Your task to perform on an android device: Search for "macbook pro 15 inch" on walmart.com, select the first entry, and add it to the cart. Image 0: 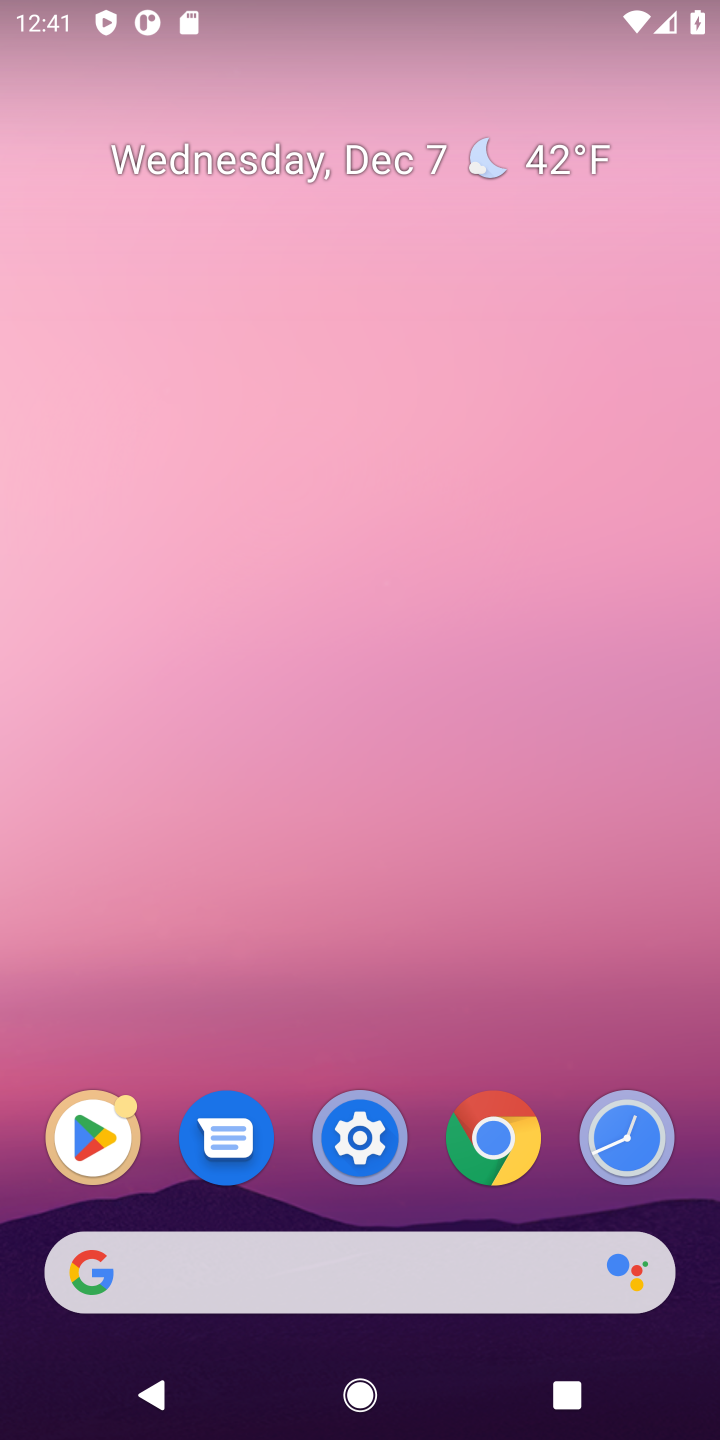
Step 0: click (289, 1302)
Your task to perform on an android device: Search for "macbook pro 15 inch" on walmart.com, select the first entry, and add it to the cart. Image 1: 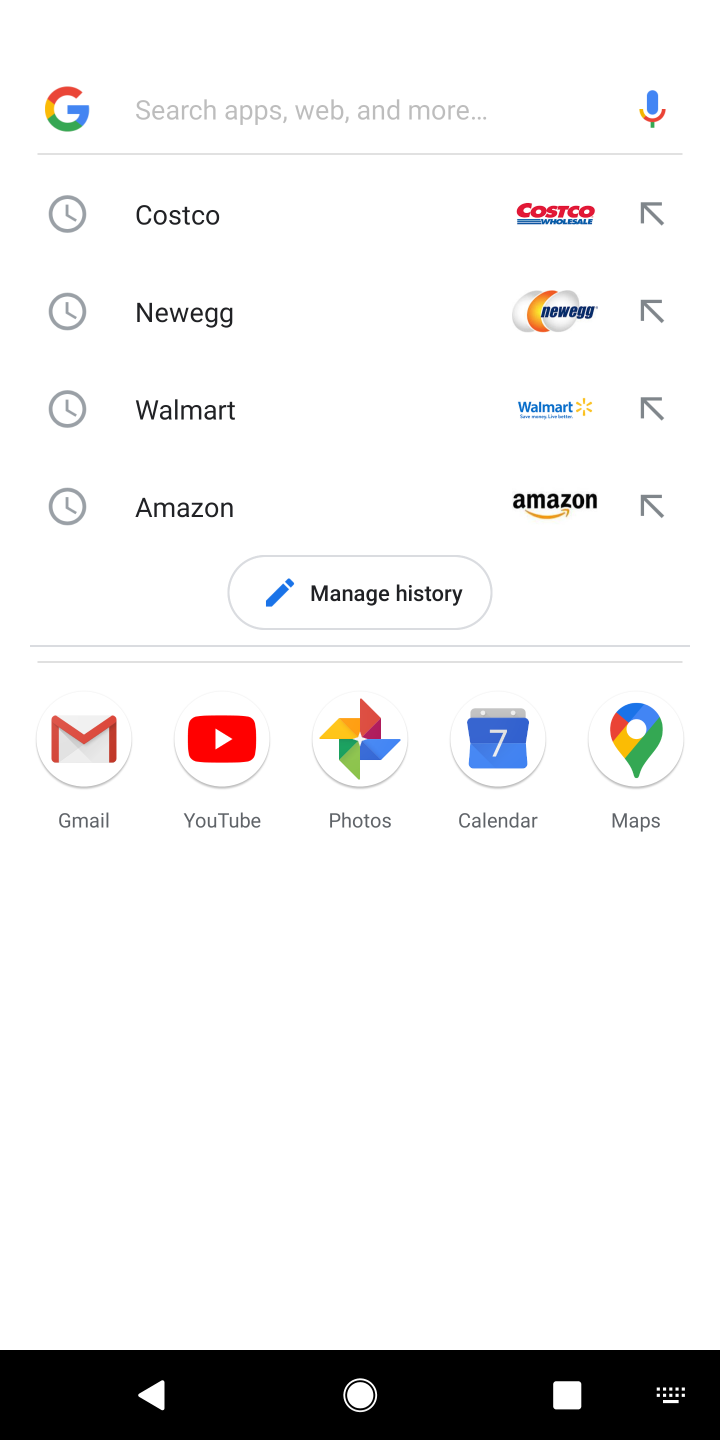
Step 1: type "walmart"
Your task to perform on an android device: Search for "macbook pro 15 inch" on walmart.com, select the first entry, and add it to the cart. Image 2: 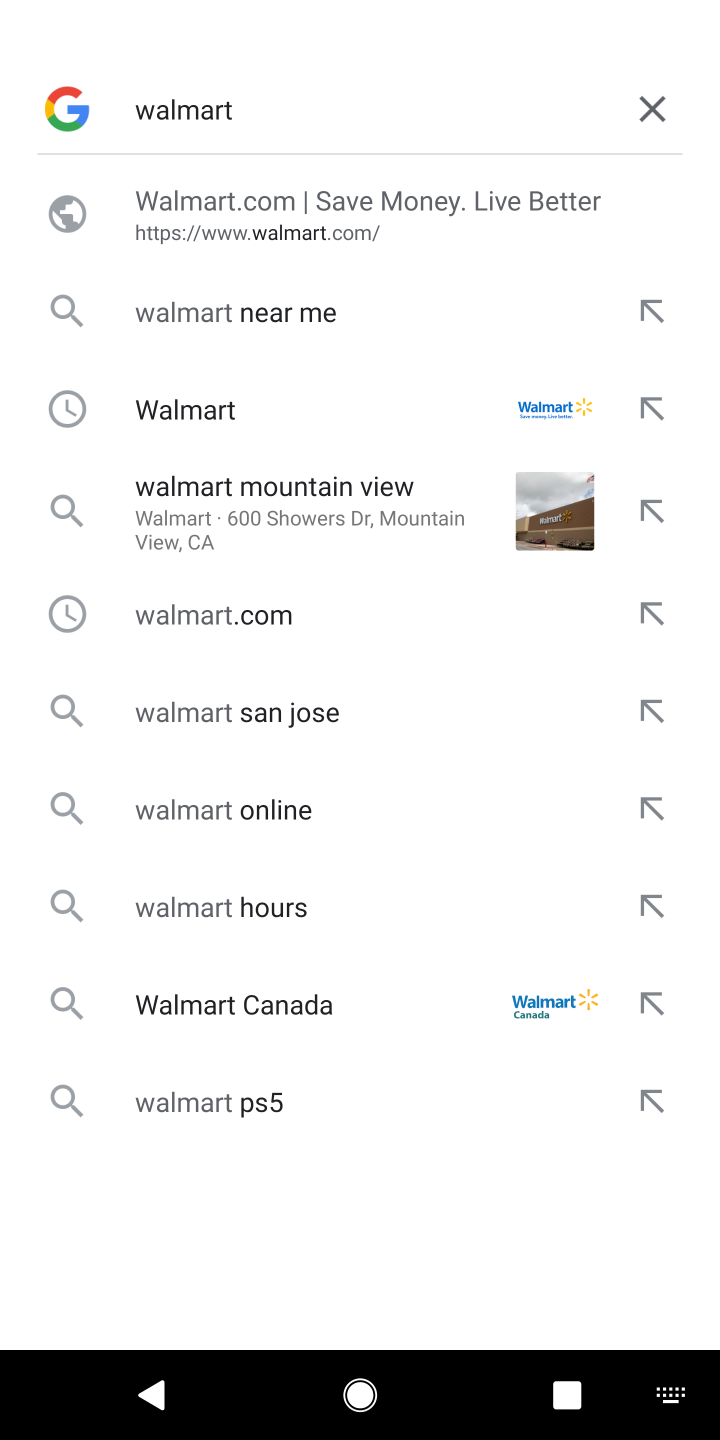
Step 2: click (260, 417)
Your task to perform on an android device: Search for "macbook pro 15 inch" on walmart.com, select the first entry, and add it to the cart. Image 3: 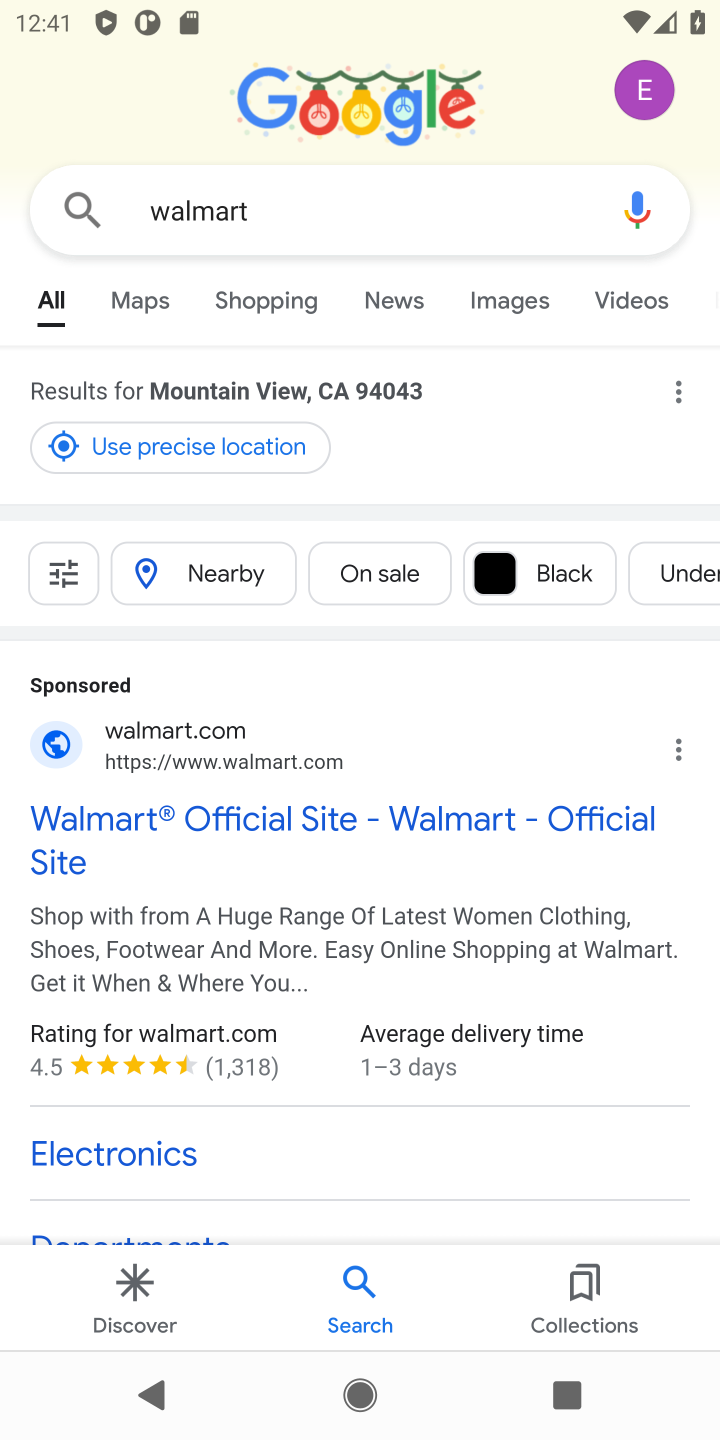
Step 3: click (29, 772)
Your task to perform on an android device: Search for "macbook pro 15 inch" on walmart.com, select the first entry, and add it to the cart. Image 4: 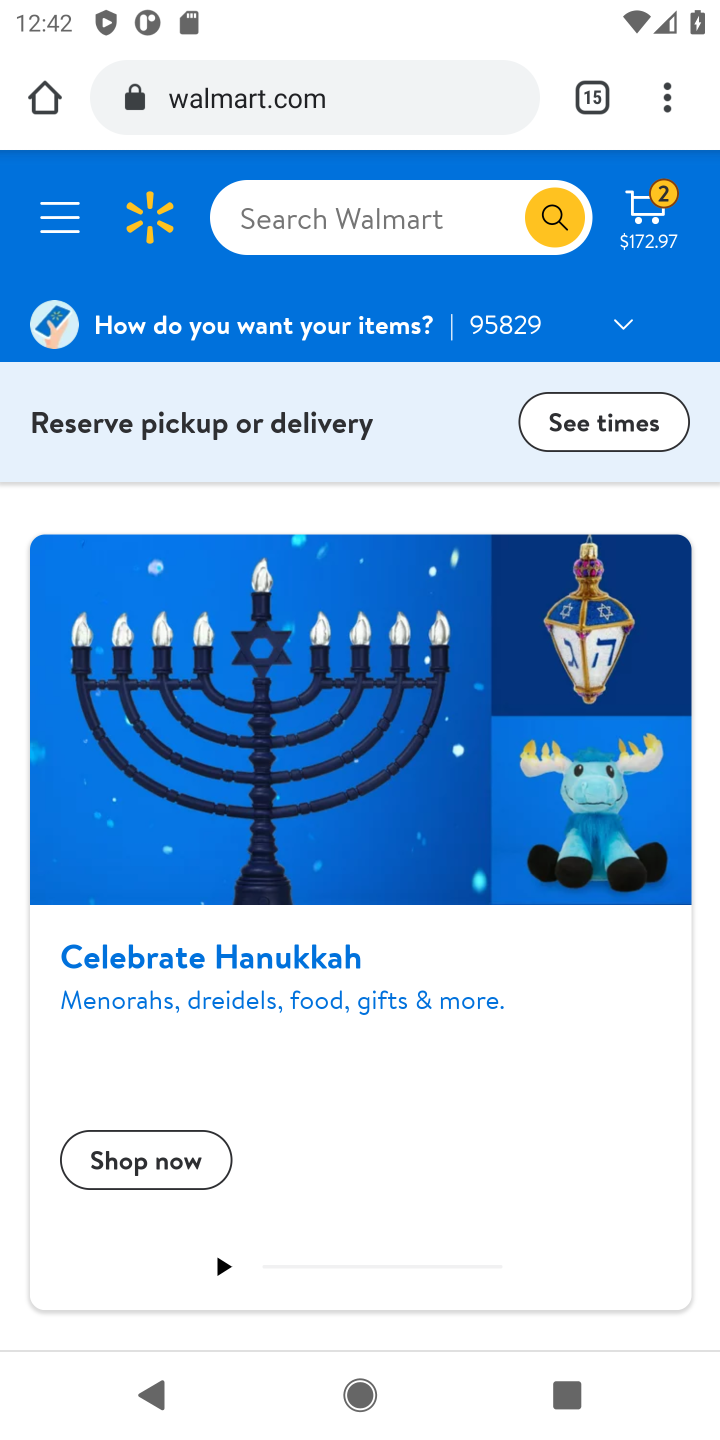
Step 4: click (323, 228)
Your task to perform on an android device: Search for "macbook pro 15 inch" on walmart.com, select the first entry, and add it to the cart. Image 5: 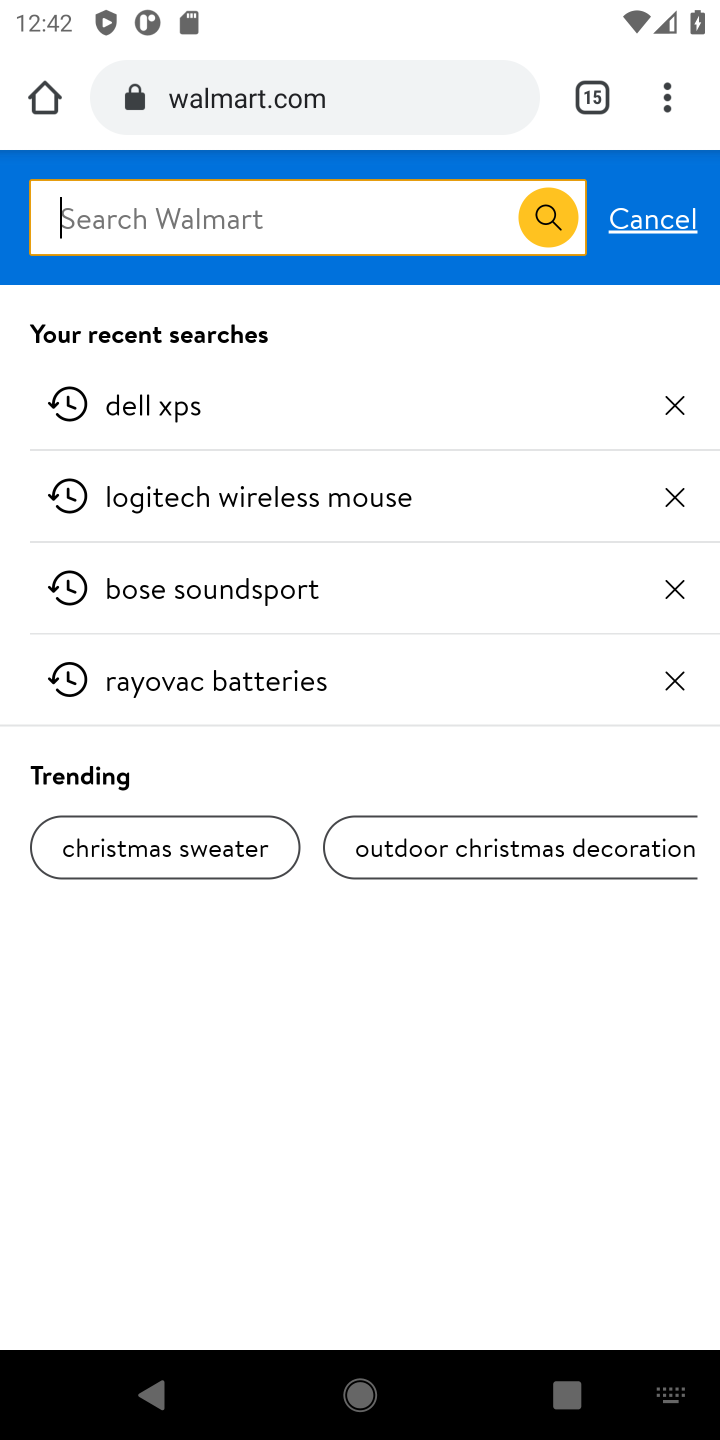
Step 5: type "macbook pro 15"
Your task to perform on an android device: Search for "macbook pro 15 inch" on walmart.com, select the first entry, and add it to the cart. Image 6: 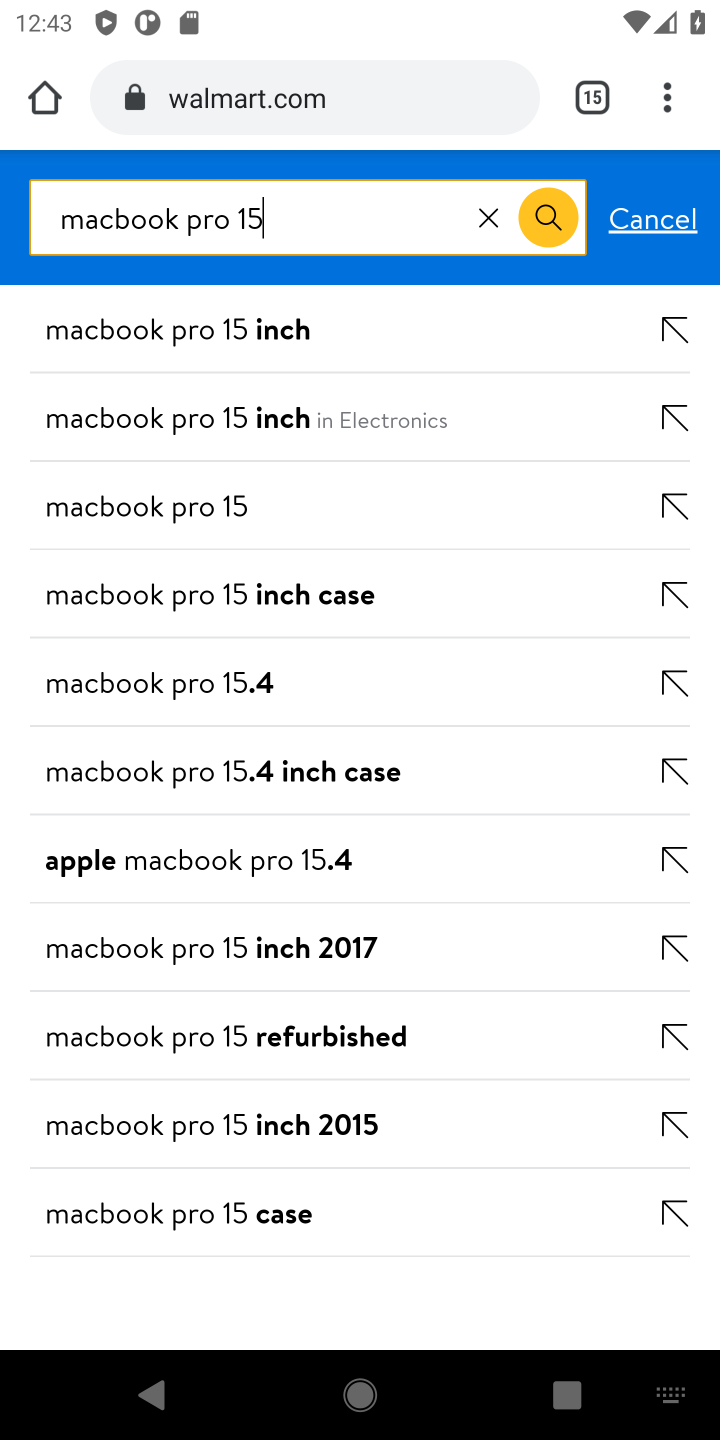
Step 6: click (199, 321)
Your task to perform on an android device: Search for "macbook pro 15 inch" on walmart.com, select the first entry, and add it to the cart. Image 7: 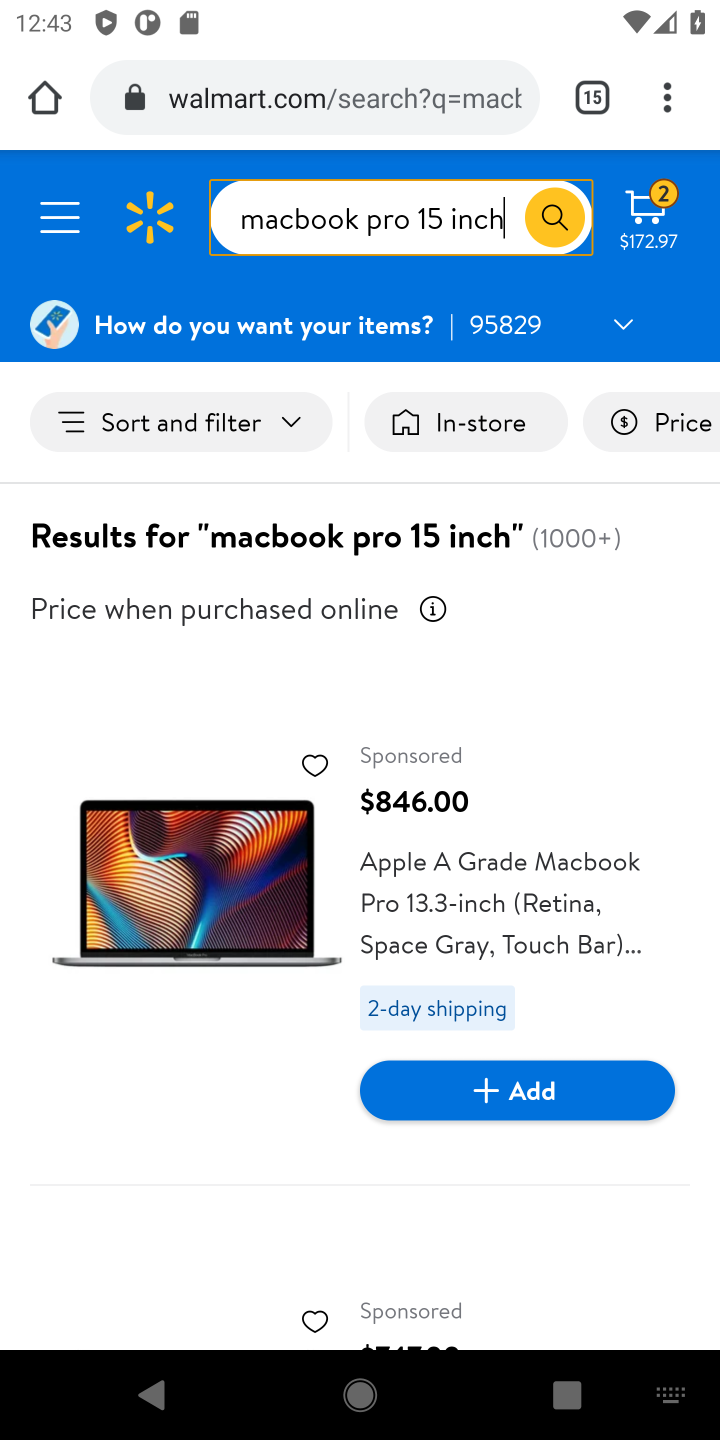
Step 7: click (583, 1114)
Your task to perform on an android device: Search for "macbook pro 15 inch" on walmart.com, select the first entry, and add it to the cart. Image 8: 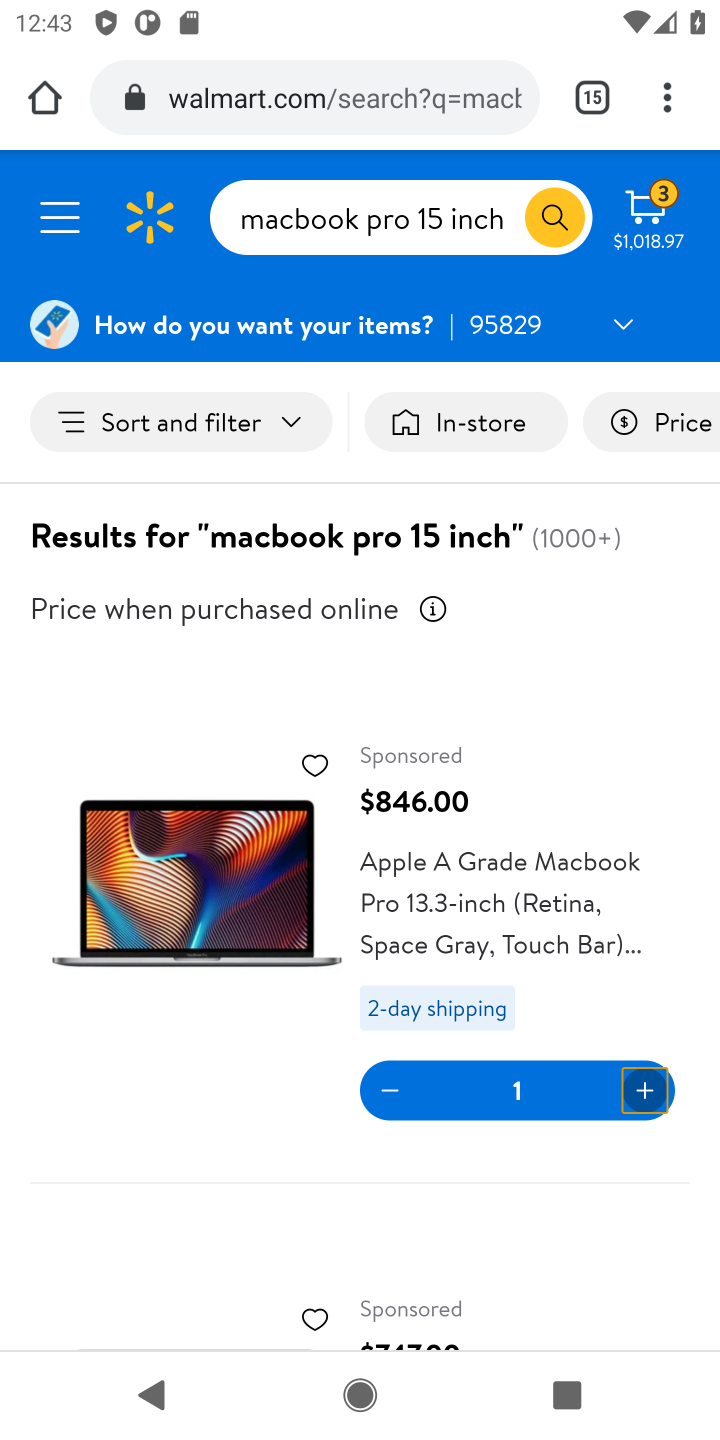
Step 8: task complete